Your task to perform on an android device: install app "File Manager" Image 0: 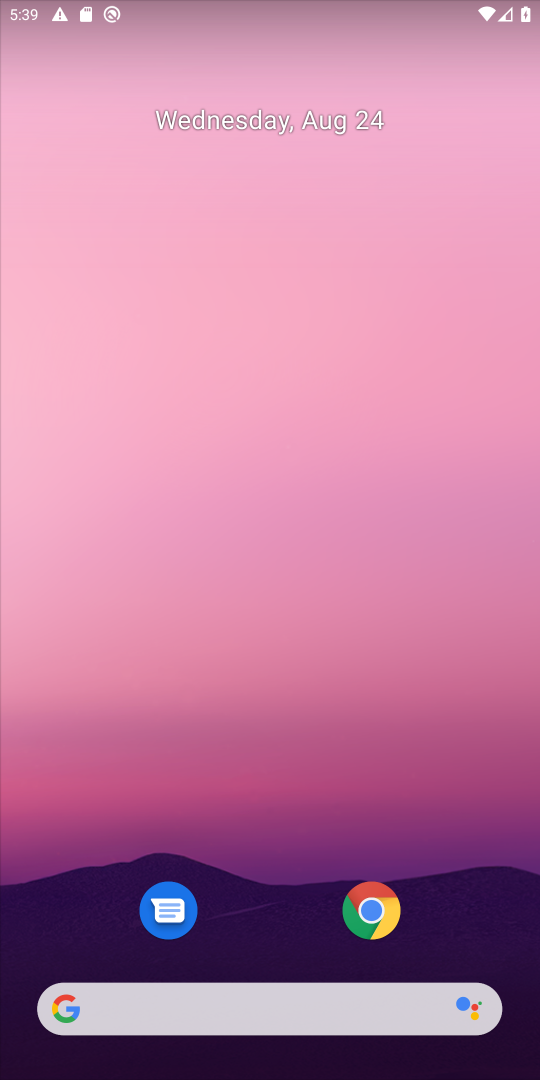
Step 0: drag from (251, 1002) to (238, 84)
Your task to perform on an android device: install app "File Manager" Image 1: 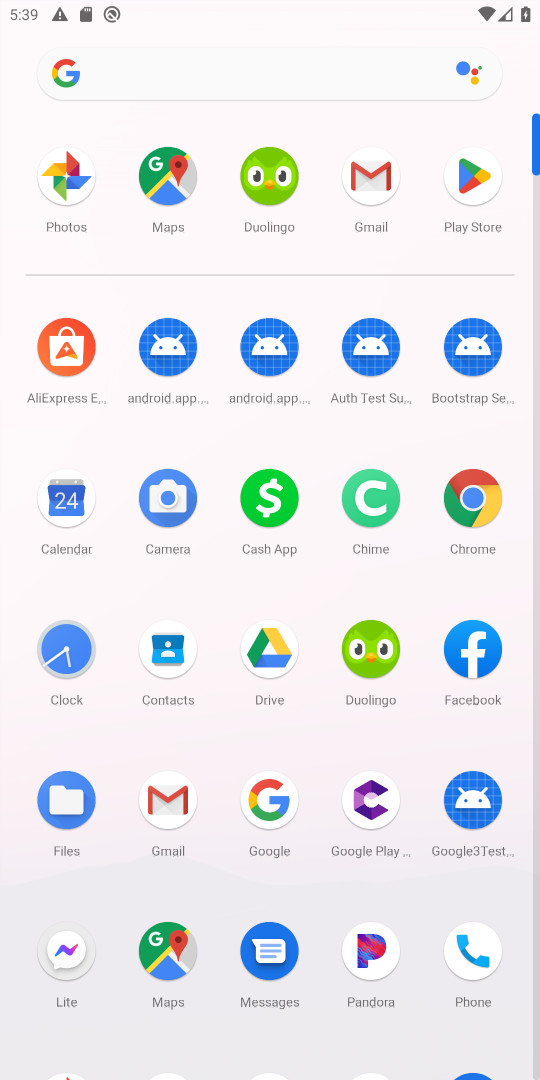
Step 1: click (484, 174)
Your task to perform on an android device: install app "File Manager" Image 2: 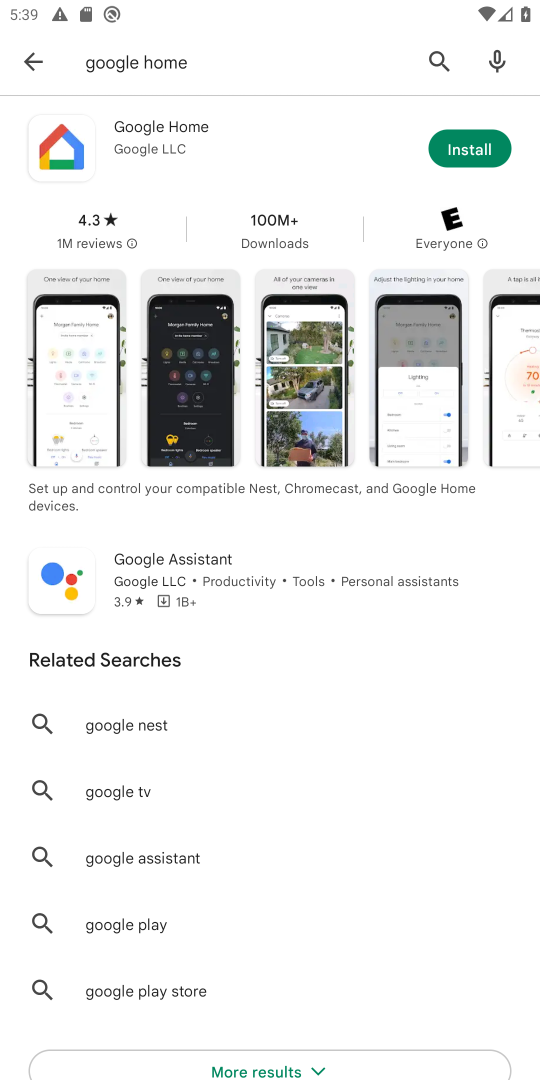
Step 2: click (428, 61)
Your task to perform on an android device: install app "File Manager" Image 3: 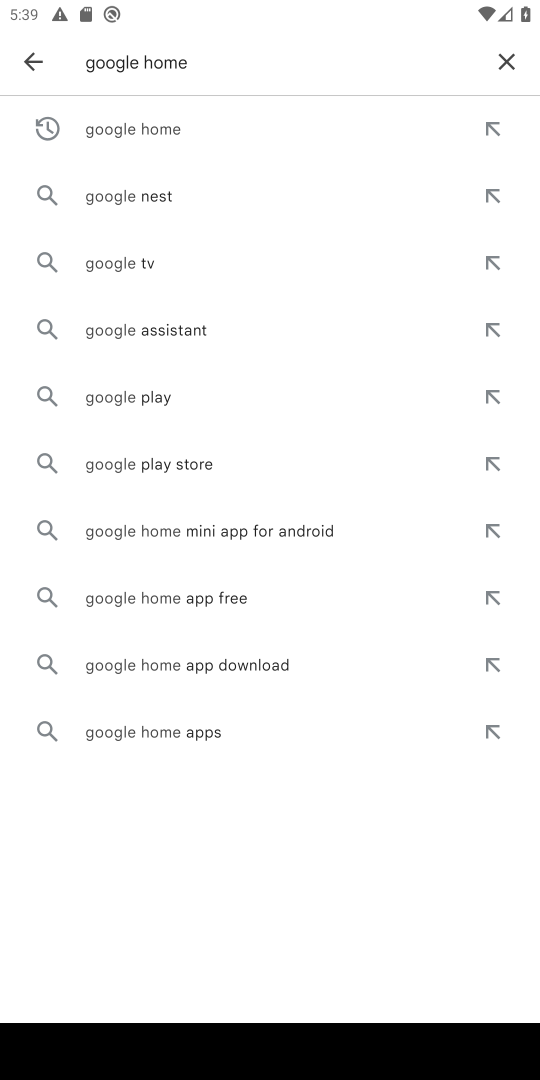
Step 3: click (513, 59)
Your task to perform on an android device: install app "File Manager" Image 4: 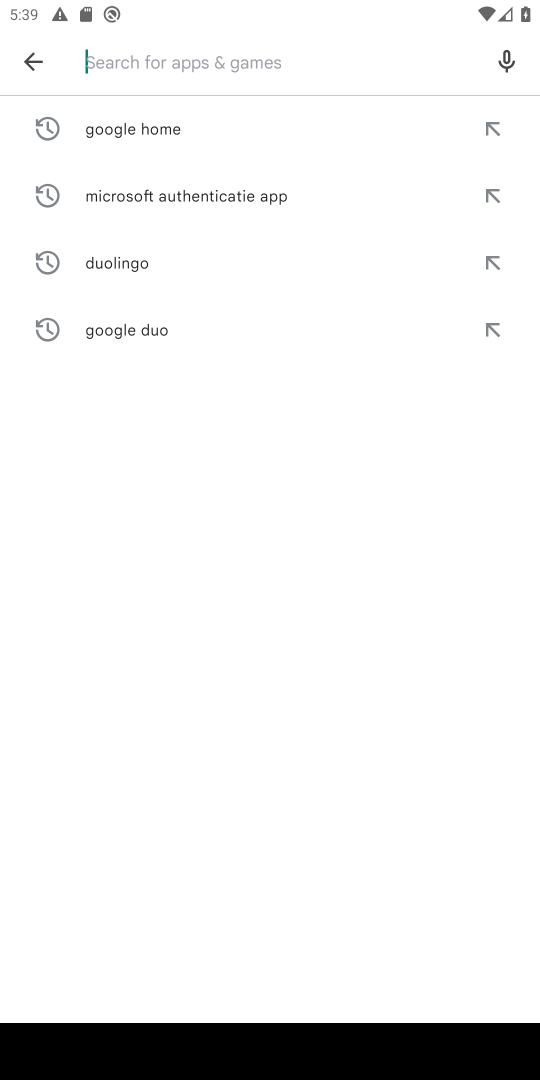
Step 4: type "file manager"
Your task to perform on an android device: install app "File Manager" Image 5: 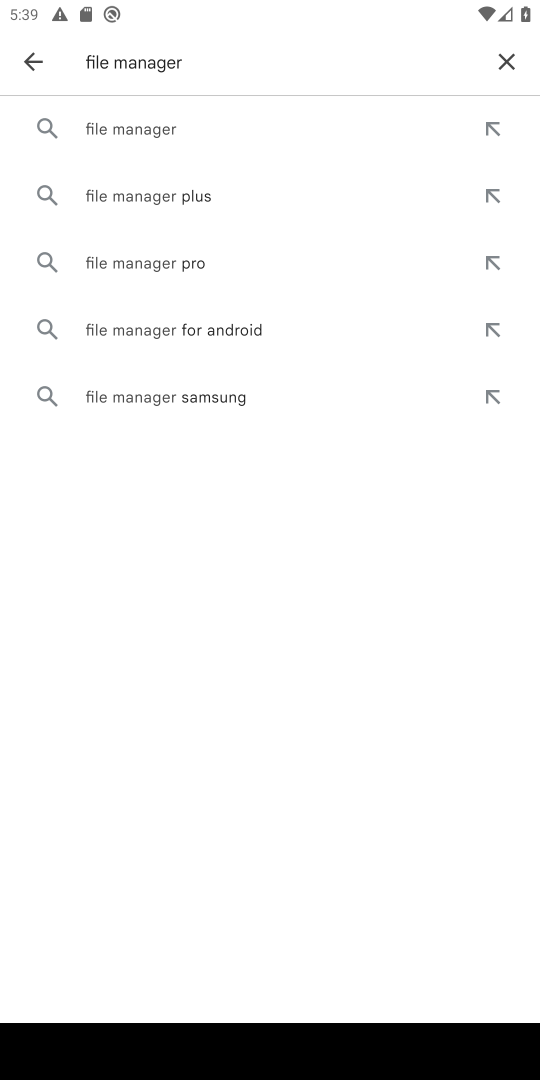
Step 5: click (190, 133)
Your task to perform on an android device: install app "File Manager" Image 6: 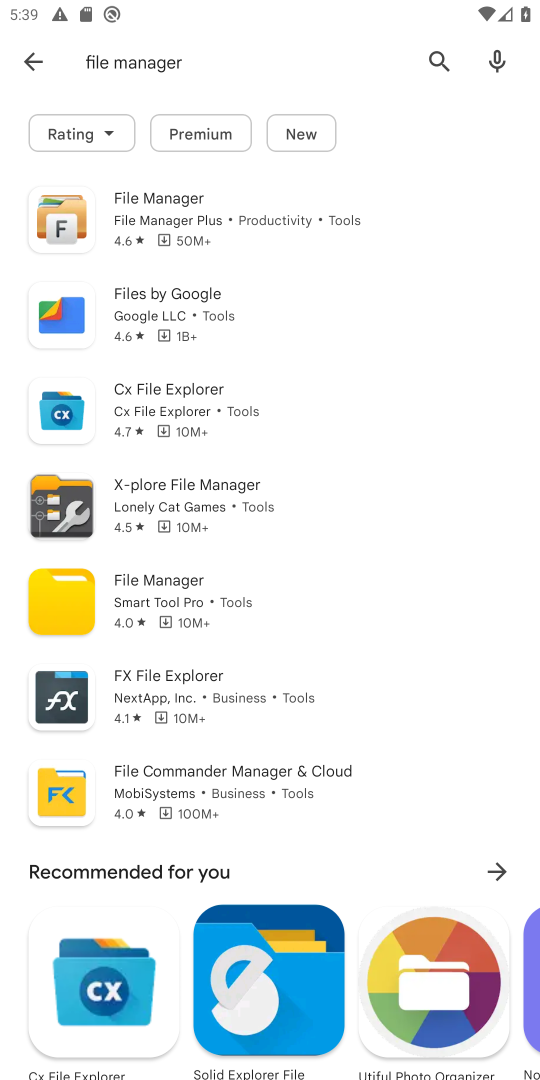
Step 6: task complete